Your task to perform on an android device: turn on location history Image 0: 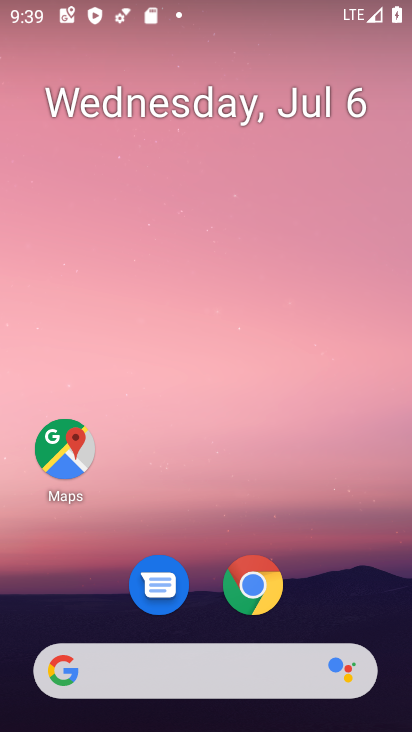
Step 0: drag from (200, 491) to (282, 0)
Your task to perform on an android device: turn on location history Image 1: 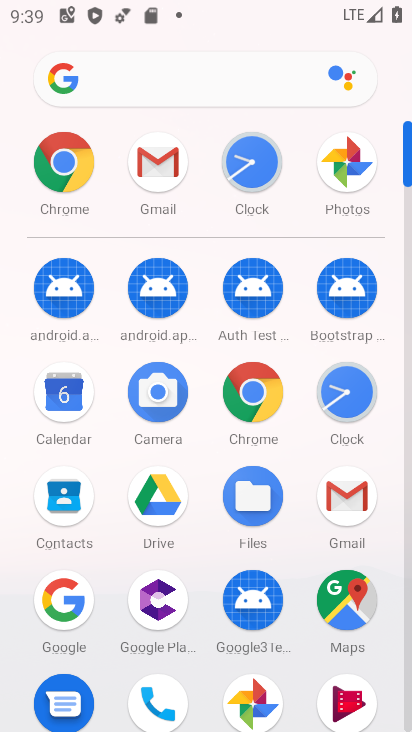
Step 1: drag from (206, 524) to (230, 144)
Your task to perform on an android device: turn on location history Image 2: 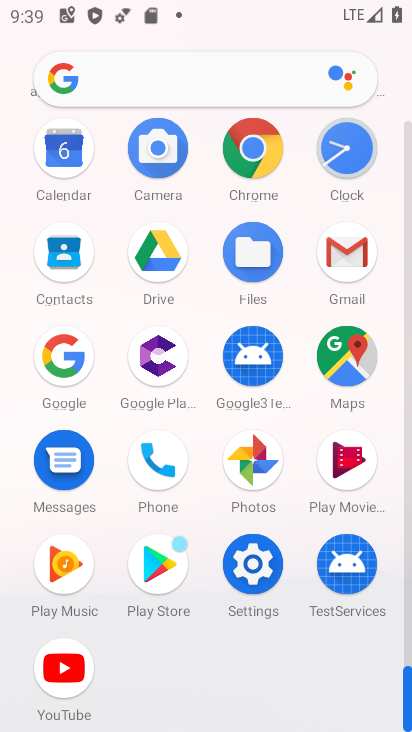
Step 2: click (249, 562)
Your task to perform on an android device: turn on location history Image 3: 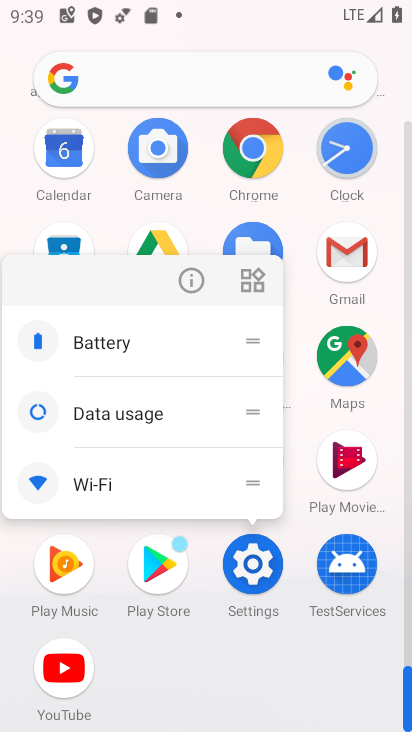
Step 3: click (249, 561)
Your task to perform on an android device: turn on location history Image 4: 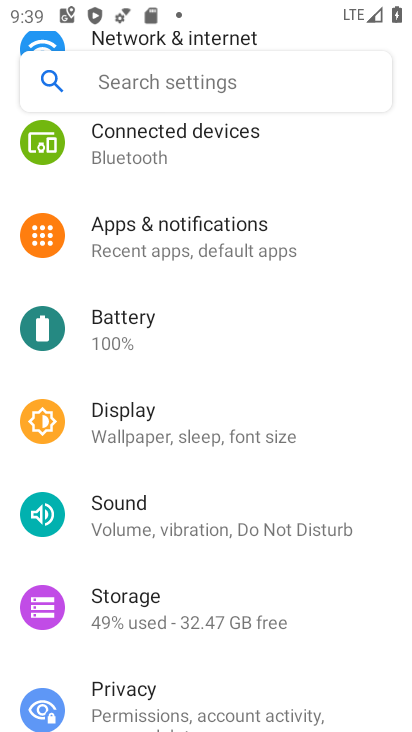
Step 4: drag from (248, 548) to (242, 145)
Your task to perform on an android device: turn on location history Image 5: 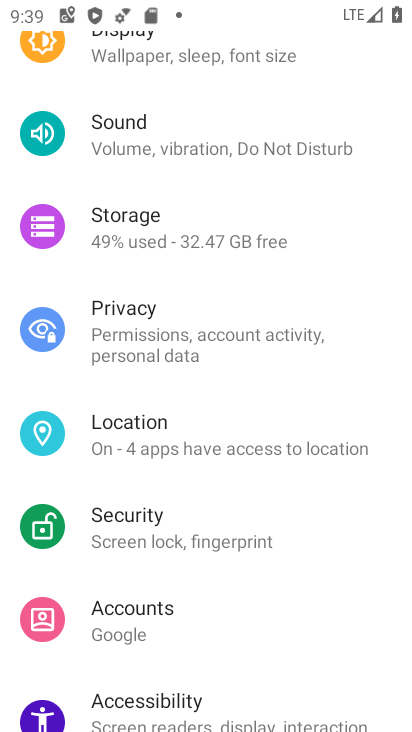
Step 5: click (192, 435)
Your task to perform on an android device: turn on location history Image 6: 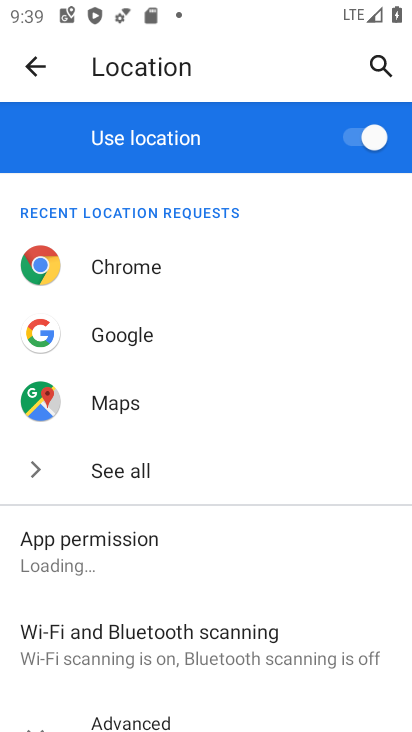
Step 6: drag from (200, 577) to (252, 205)
Your task to perform on an android device: turn on location history Image 7: 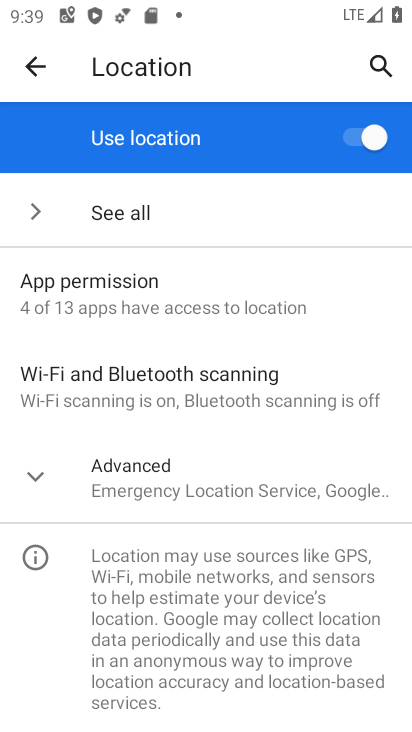
Step 7: click (34, 471)
Your task to perform on an android device: turn on location history Image 8: 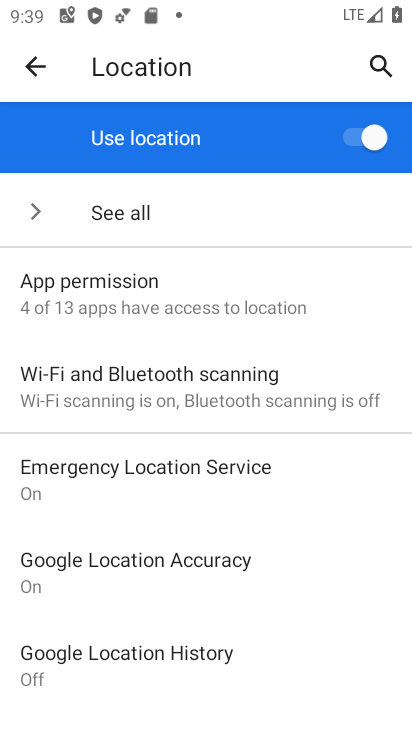
Step 8: click (220, 654)
Your task to perform on an android device: turn on location history Image 9: 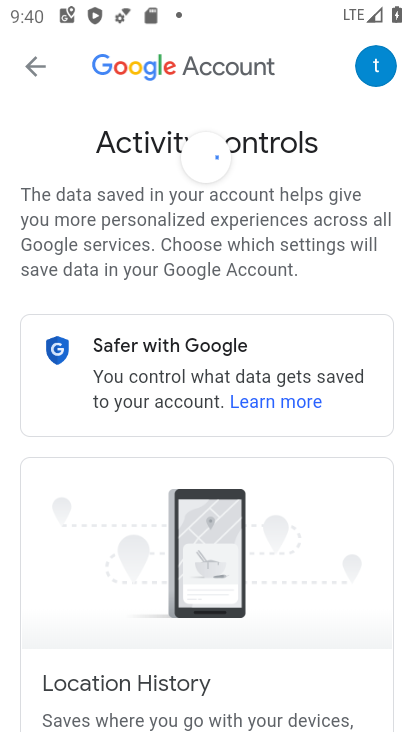
Step 9: drag from (329, 600) to (299, 255)
Your task to perform on an android device: turn on location history Image 10: 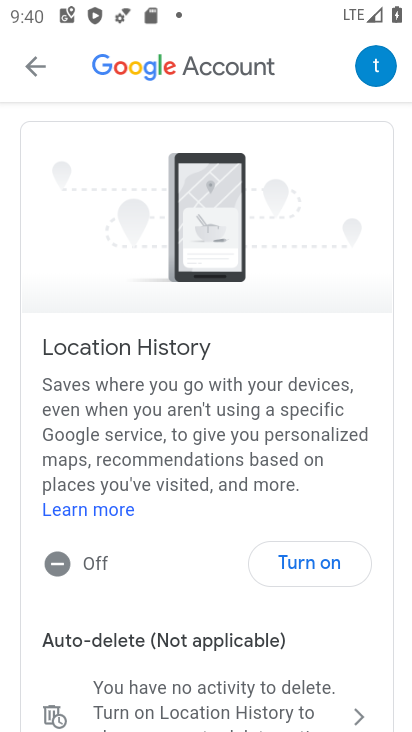
Step 10: click (307, 563)
Your task to perform on an android device: turn on location history Image 11: 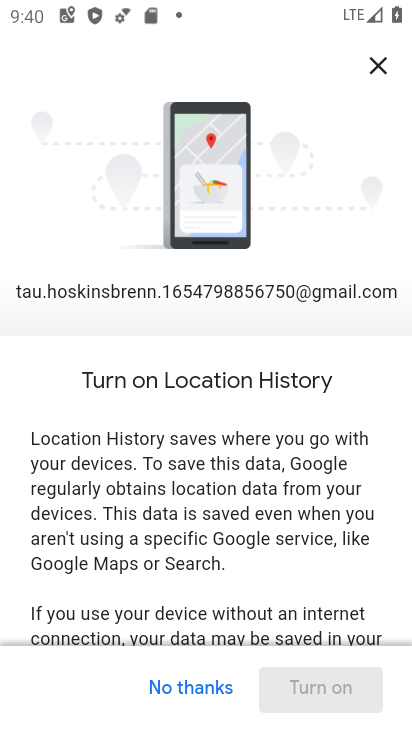
Step 11: drag from (282, 570) to (265, 129)
Your task to perform on an android device: turn on location history Image 12: 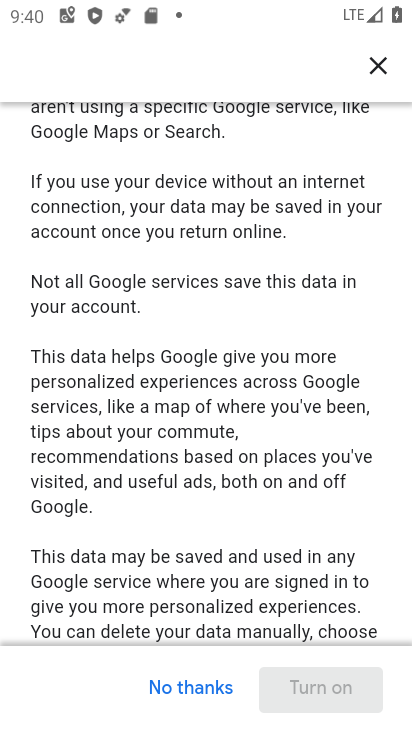
Step 12: drag from (222, 499) to (247, 112)
Your task to perform on an android device: turn on location history Image 13: 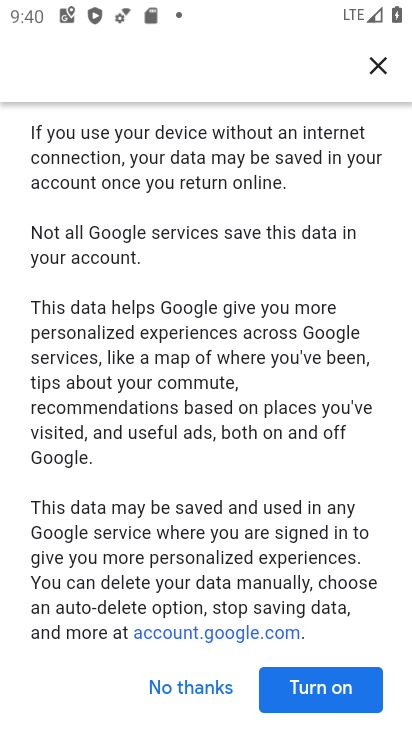
Step 13: click (328, 691)
Your task to perform on an android device: turn on location history Image 14: 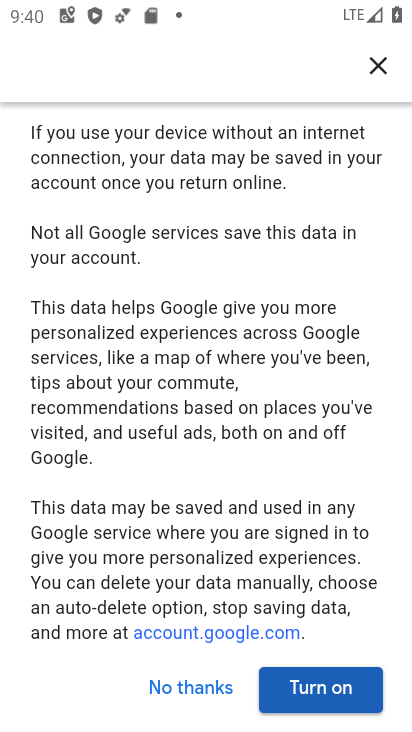
Step 14: click (340, 692)
Your task to perform on an android device: turn on location history Image 15: 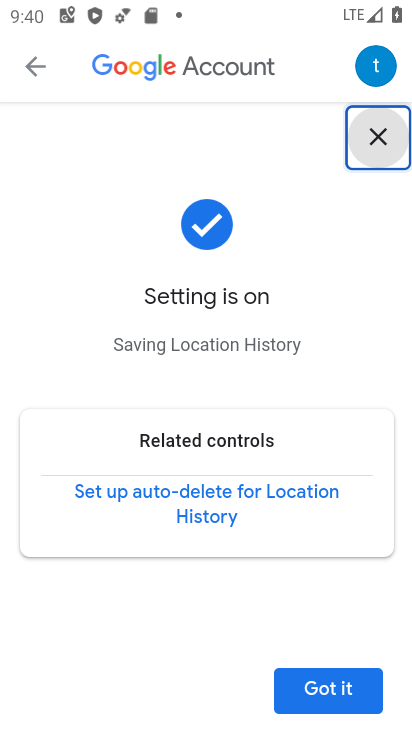
Step 15: click (340, 694)
Your task to perform on an android device: turn on location history Image 16: 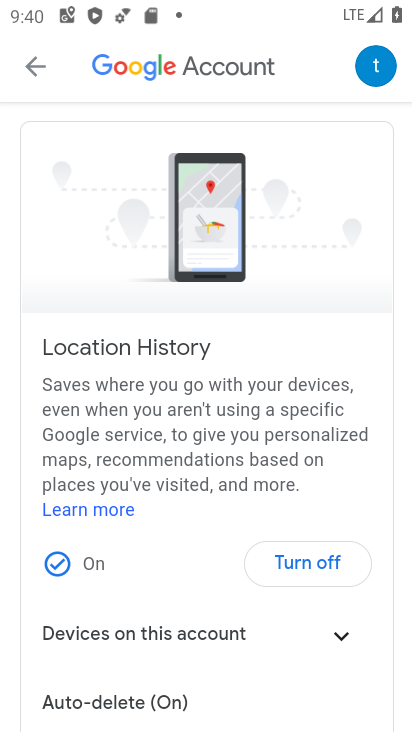
Step 16: task complete